Your task to perform on an android device: What's on my calendar today? Image 0: 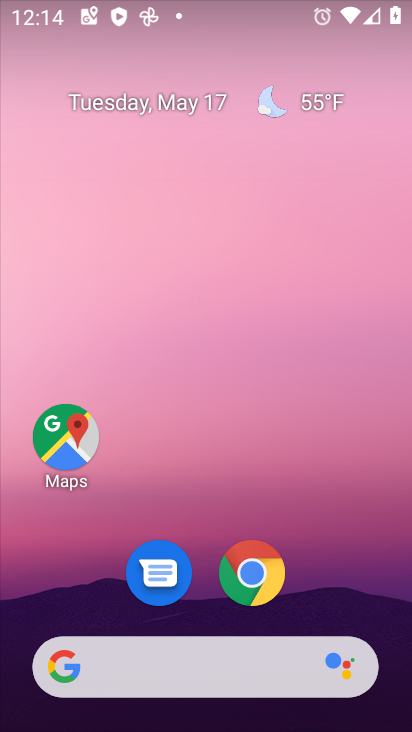
Step 0: drag from (379, 566) to (288, 122)
Your task to perform on an android device: What's on my calendar today? Image 1: 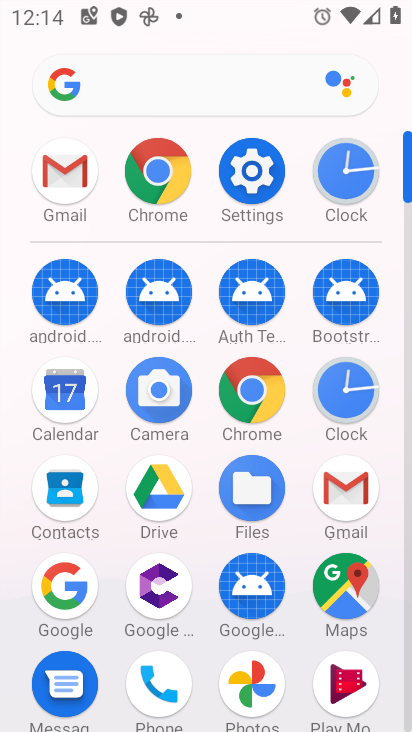
Step 1: click (68, 402)
Your task to perform on an android device: What's on my calendar today? Image 2: 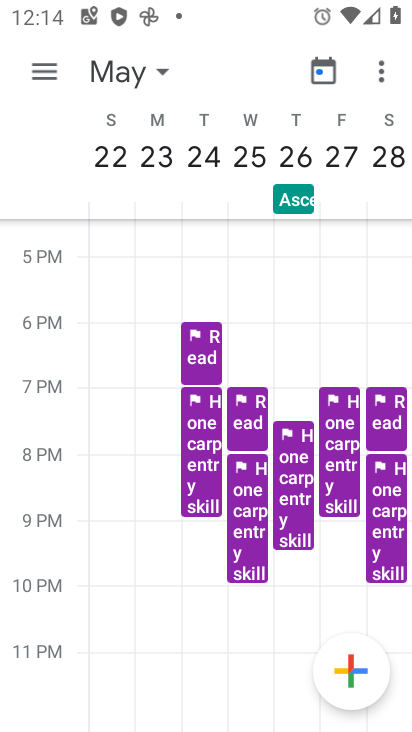
Step 2: click (122, 76)
Your task to perform on an android device: What's on my calendar today? Image 3: 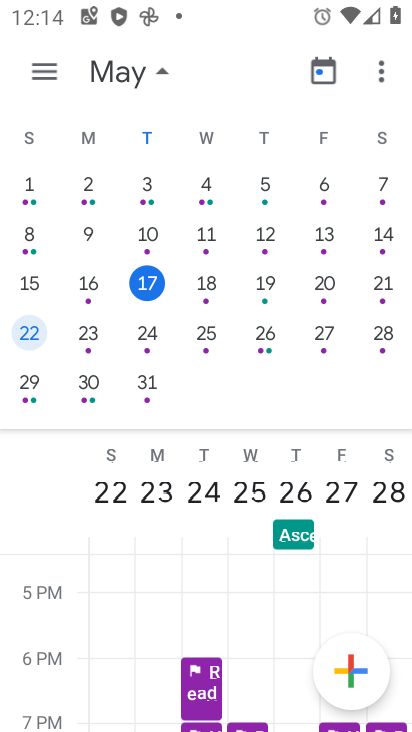
Step 3: click (143, 280)
Your task to perform on an android device: What's on my calendar today? Image 4: 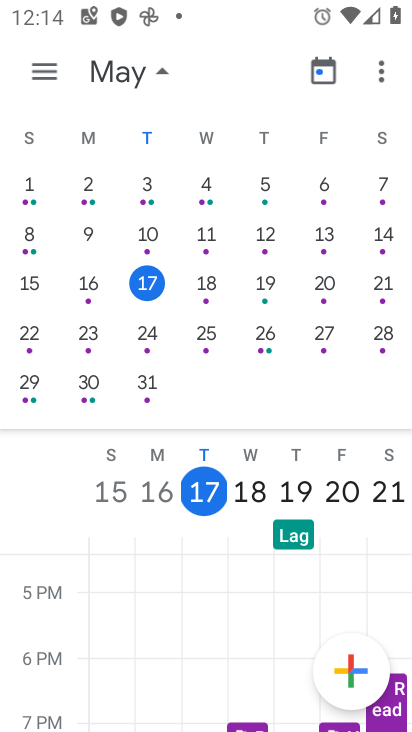
Step 4: click (51, 83)
Your task to perform on an android device: What's on my calendar today? Image 5: 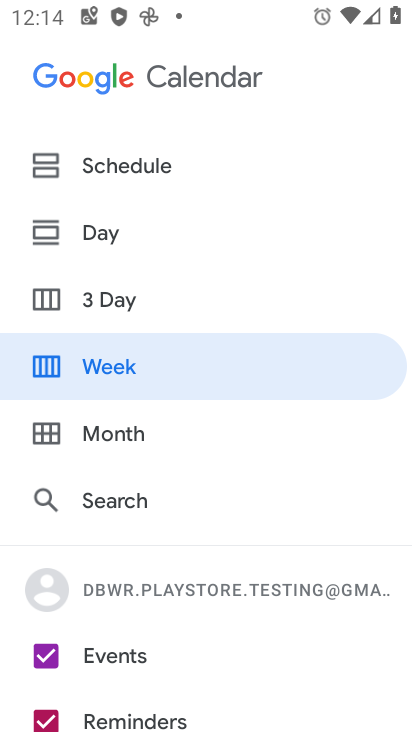
Step 5: click (113, 233)
Your task to perform on an android device: What's on my calendar today? Image 6: 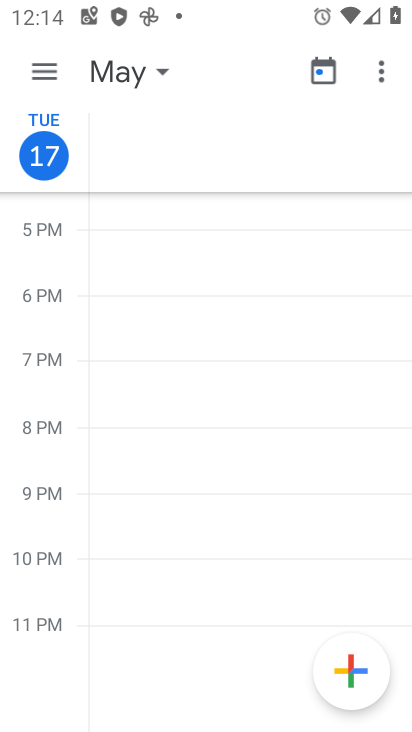
Step 6: task complete